Your task to perform on an android device: Go to Maps Image 0: 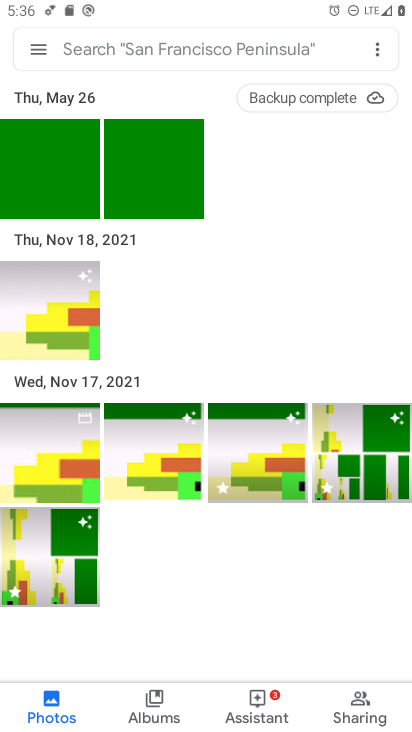
Step 0: press home button
Your task to perform on an android device: Go to Maps Image 1: 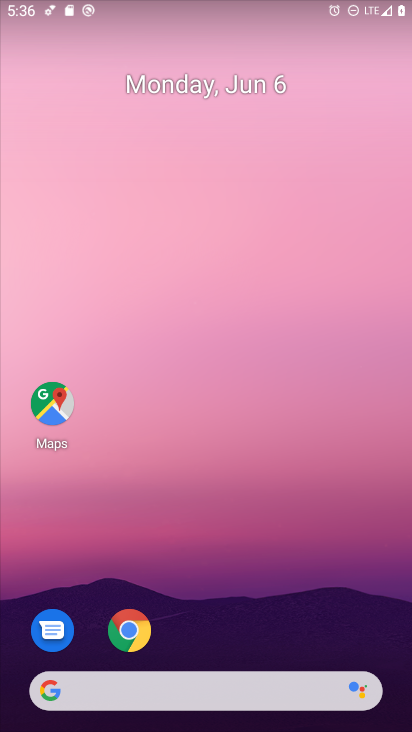
Step 1: drag from (310, 619) to (155, 728)
Your task to perform on an android device: Go to Maps Image 2: 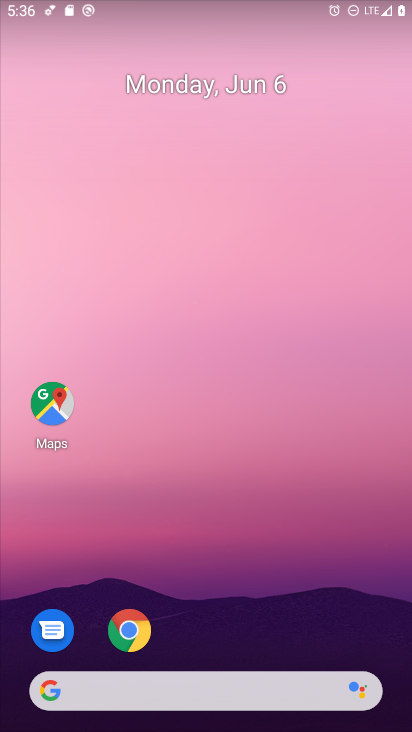
Step 2: click (42, 412)
Your task to perform on an android device: Go to Maps Image 3: 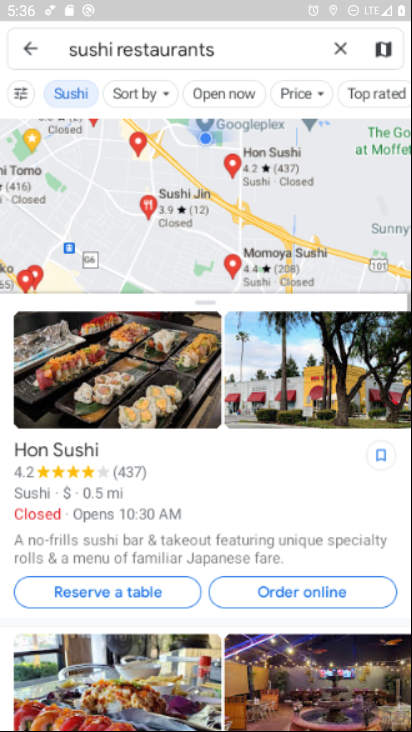
Step 3: task complete